Your task to perform on an android device: Open sound settings Image 0: 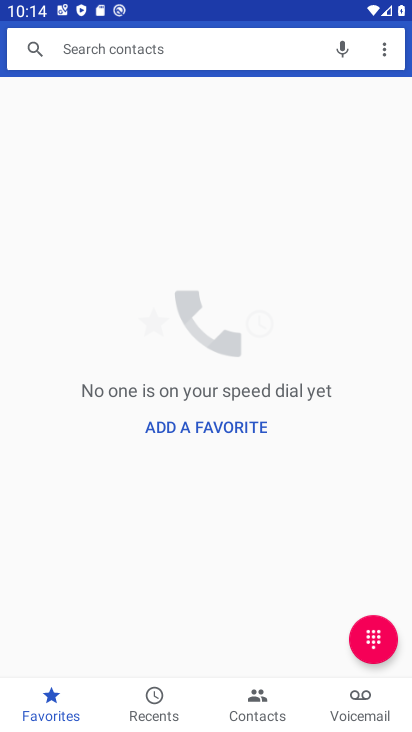
Step 0: press home button
Your task to perform on an android device: Open sound settings Image 1: 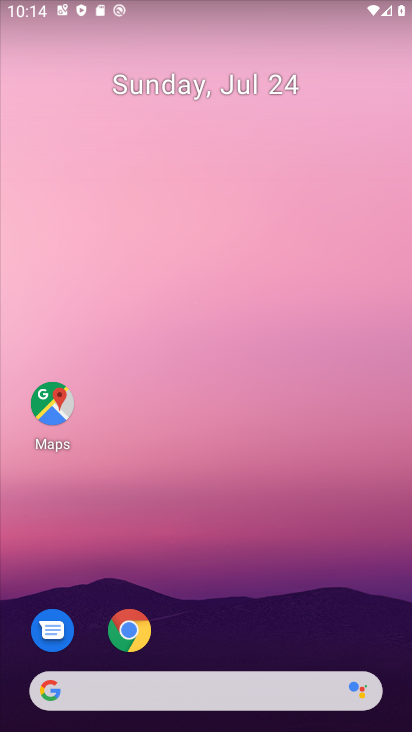
Step 1: drag from (235, 629) to (248, 245)
Your task to perform on an android device: Open sound settings Image 2: 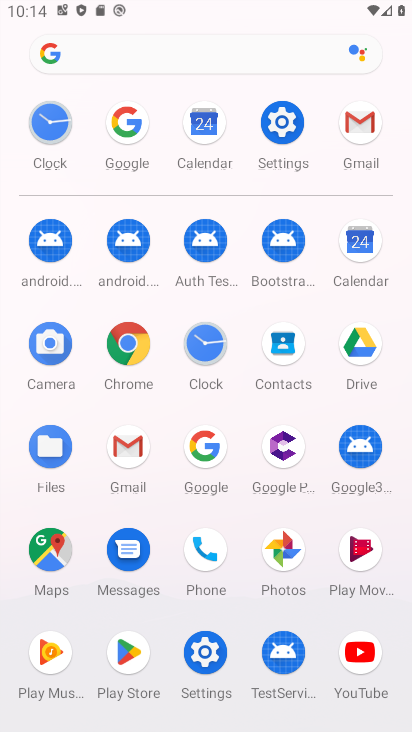
Step 2: click (268, 110)
Your task to perform on an android device: Open sound settings Image 3: 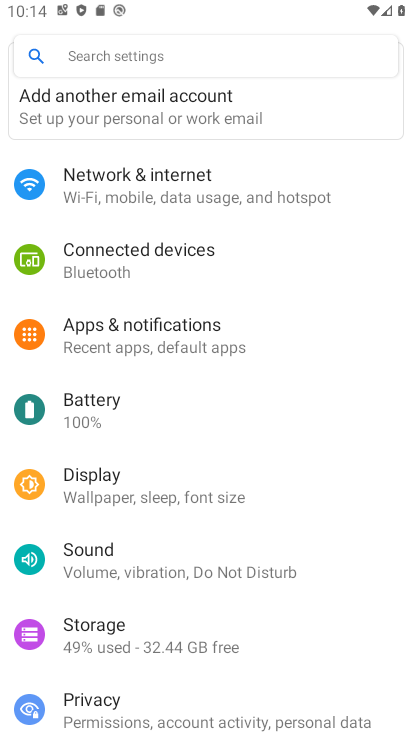
Step 3: click (124, 548)
Your task to perform on an android device: Open sound settings Image 4: 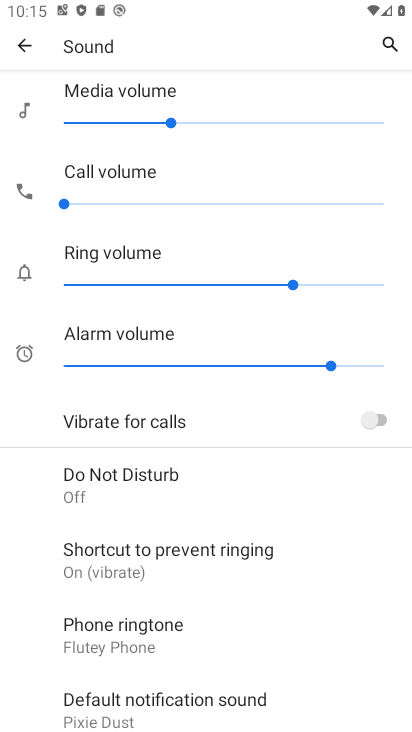
Step 4: task complete